Your task to perform on an android device: Set the phone to "Do not disturb". Image 0: 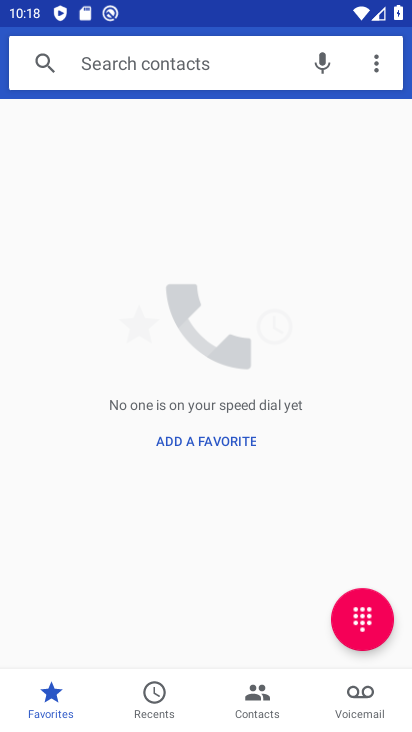
Step 0: press back button
Your task to perform on an android device: Set the phone to "Do not disturb". Image 1: 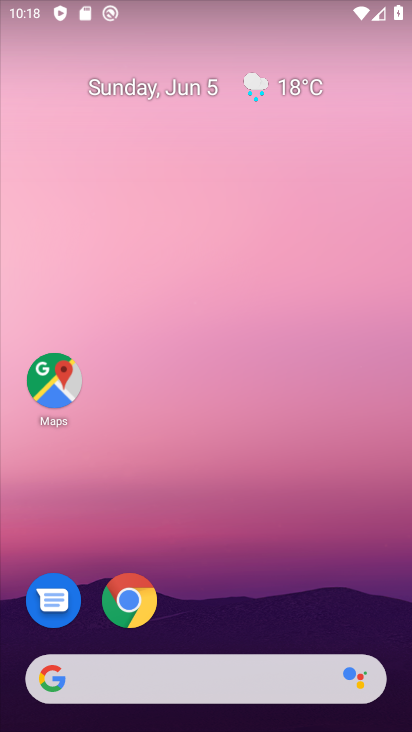
Step 1: drag from (208, 6) to (225, 519)
Your task to perform on an android device: Set the phone to "Do not disturb". Image 2: 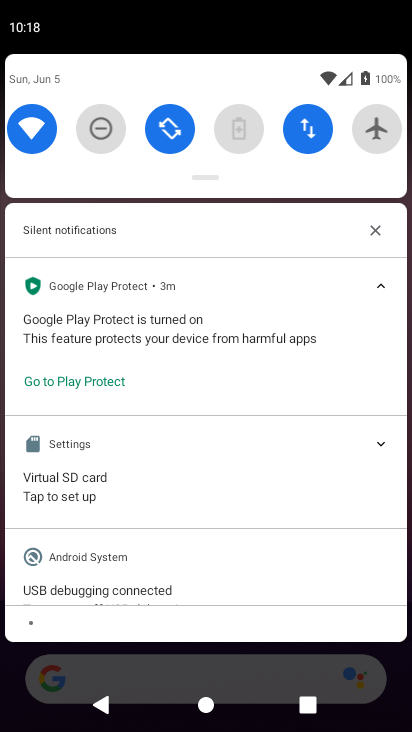
Step 2: click (92, 135)
Your task to perform on an android device: Set the phone to "Do not disturb". Image 3: 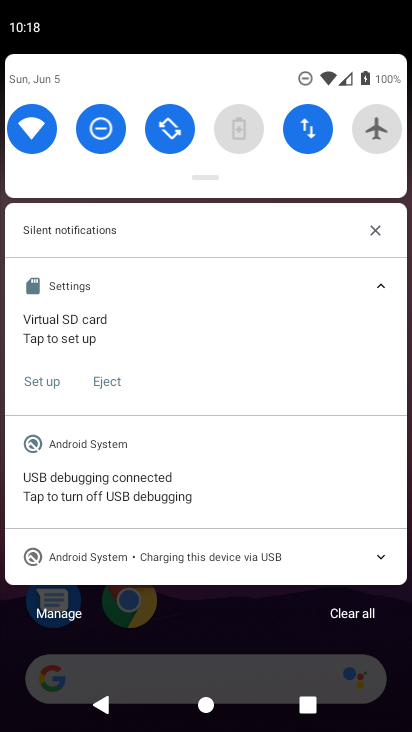
Step 3: task complete